Your task to perform on an android device: Open ESPN.com Image 0: 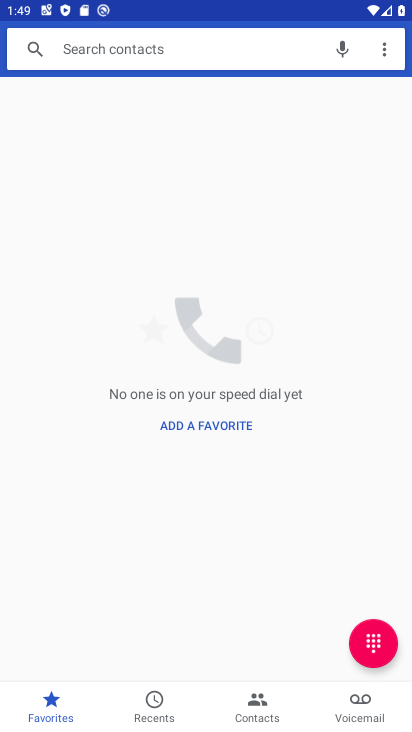
Step 0: press home button
Your task to perform on an android device: Open ESPN.com Image 1: 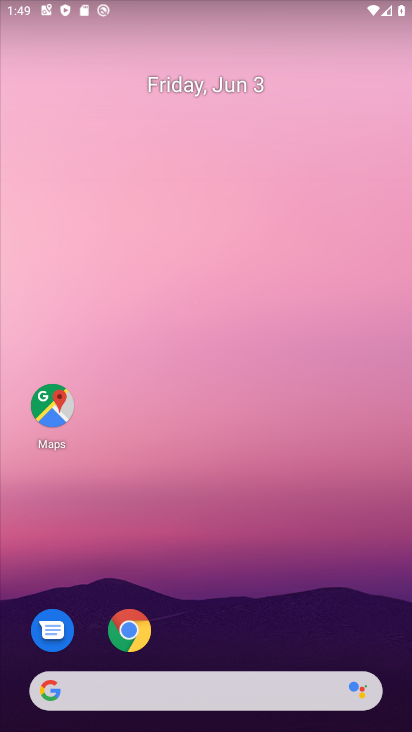
Step 1: press home button
Your task to perform on an android device: Open ESPN.com Image 2: 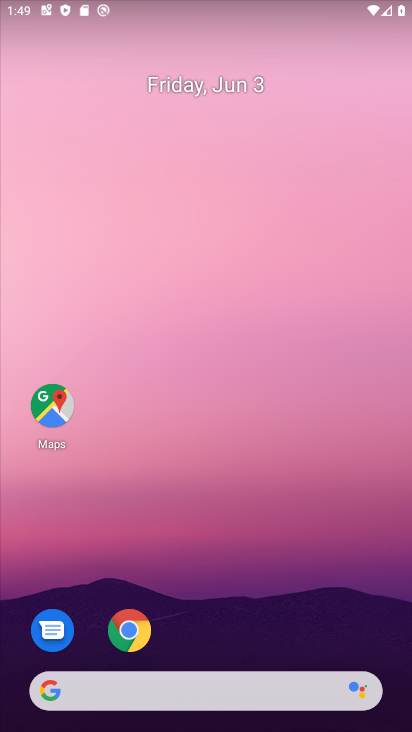
Step 2: click (132, 626)
Your task to perform on an android device: Open ESPN.com Image 3: 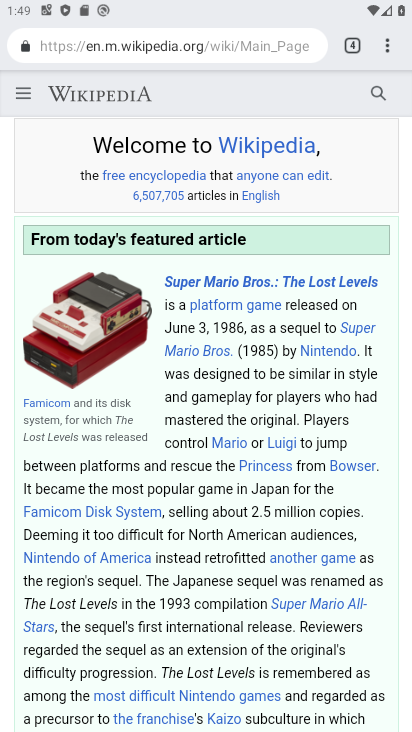
Step 3: click (388, 53)
Your task to perform on an android device: Open ESPN.com Image 4: 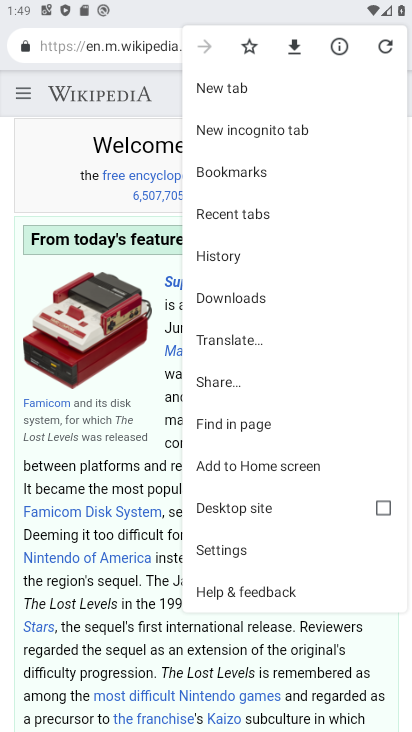
Step 4: click (208, 86)
Your task to perform on an android device: Open ESPN.com Image 5: 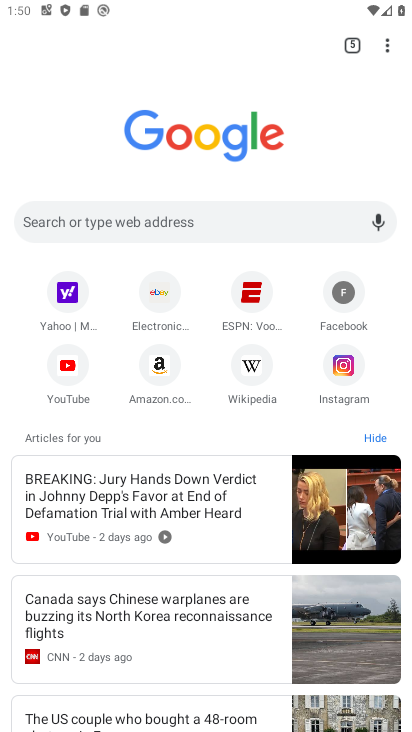
Step 5: click (251, 291)
Your task to perform on an android device: Open ESPN.com Image 6: 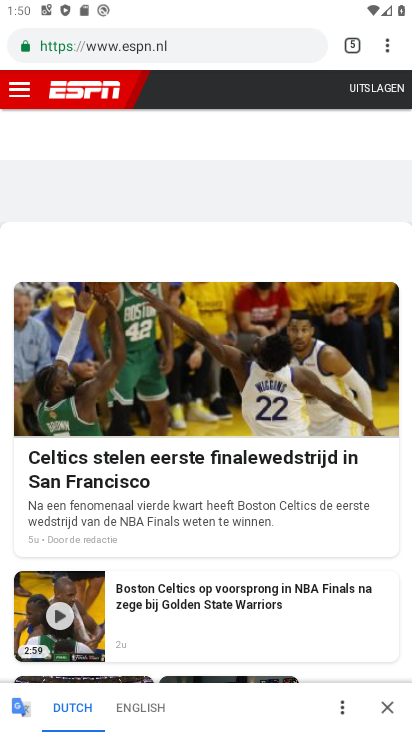
Step 6: task complete